Your task to perform on an android device: open app "Pandora - Music & Podcasts" (install if not already installed) and go to login screen Image 0: 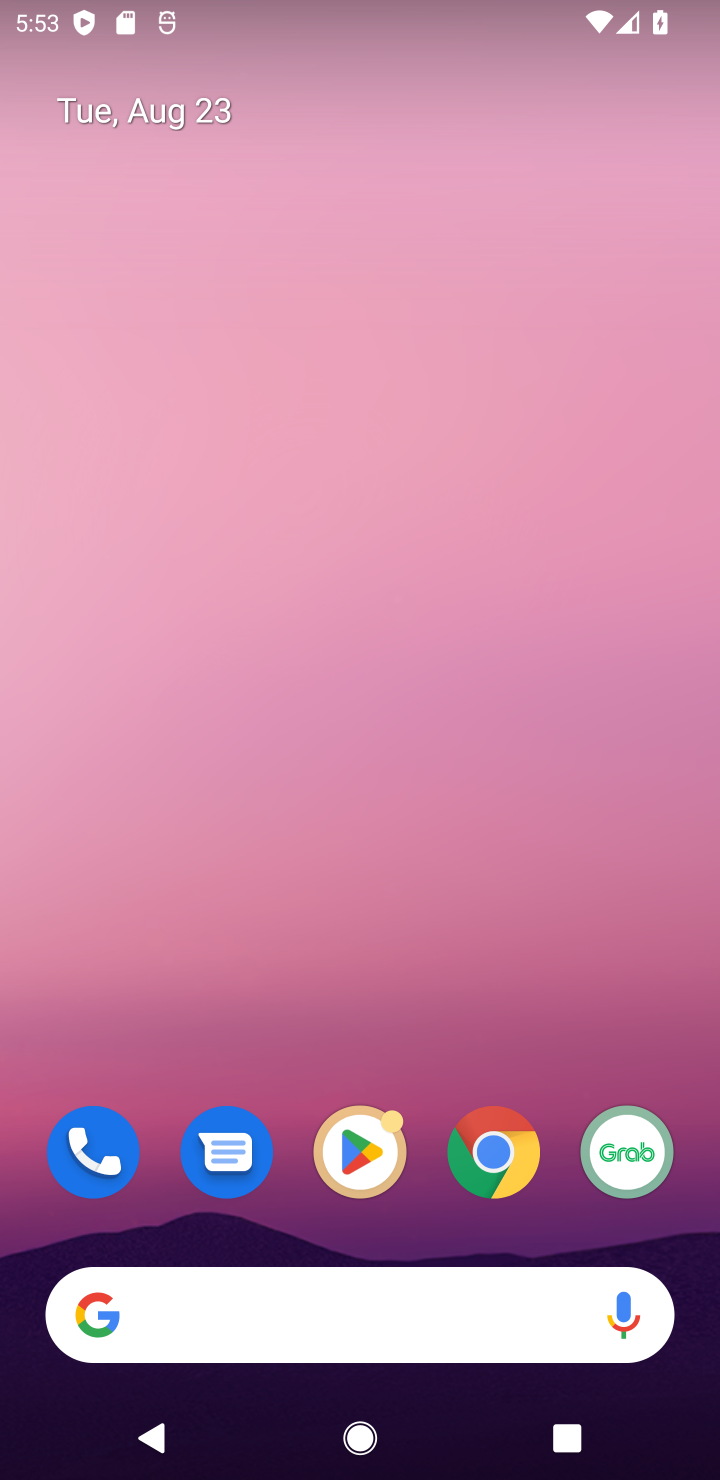
Step 0: click (374, 1147)
Your task to perform on an android device: open app "Pandora - Music & Podcasts" (install if not already installed) and go to login screen Image 1: 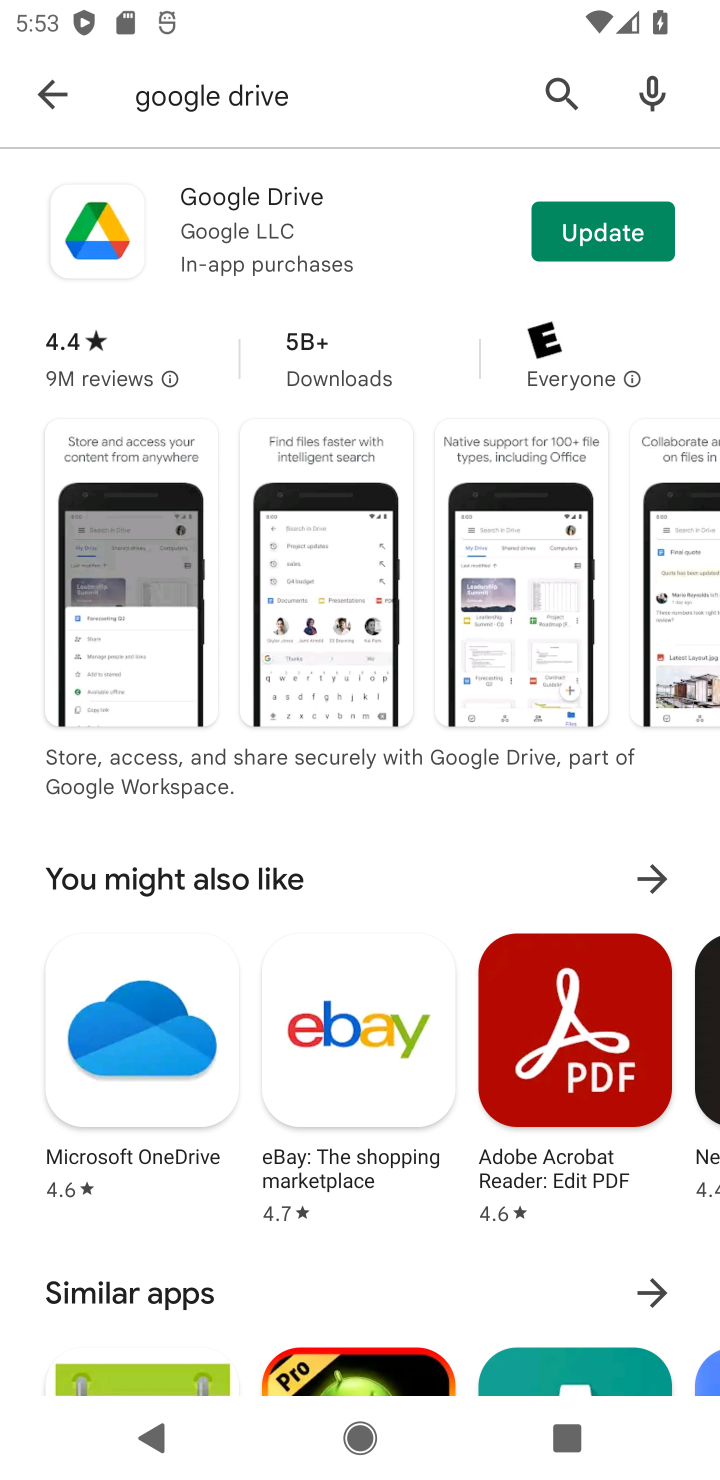
Step 1: click (576, 84)
Your task to perform on an android device: open app "Pandora - Music & Podcasts" (install if not already installed) and go to login screen Image 2: 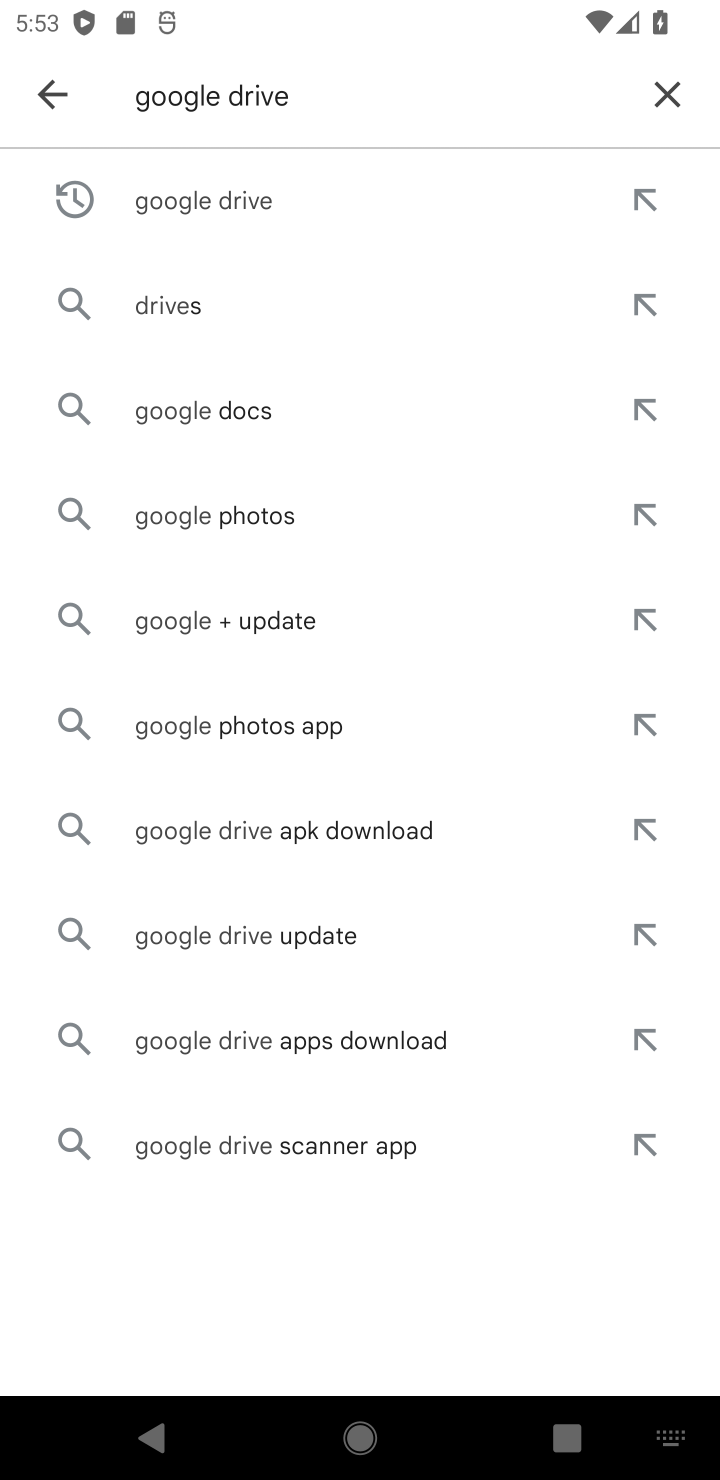
Step 2: click (684, 97)
Your task to perform on an android device: open app "Pandora - Music & Podcasts" (install if not already installed) and go to login screen Image 3: 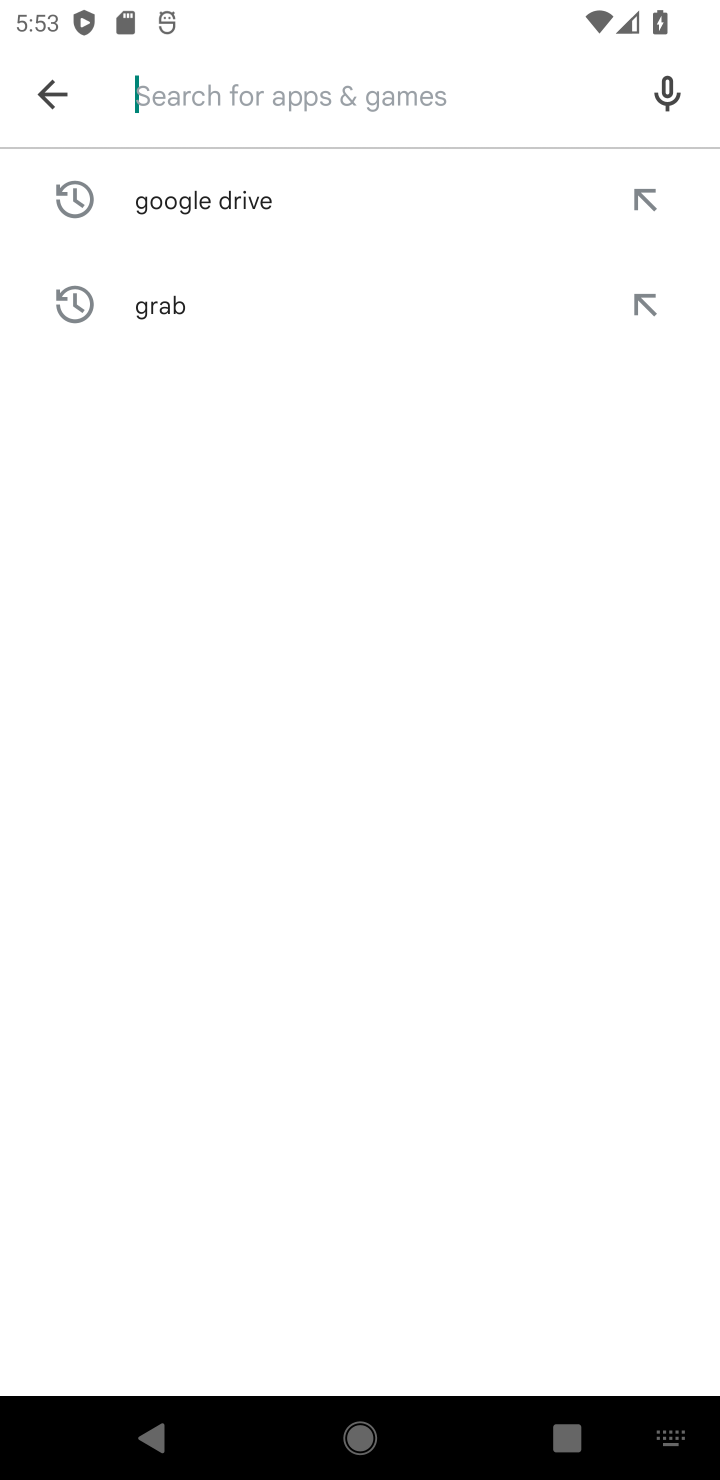
Step 3: click (277, 116)
Your task to perform on an android device: open app "Pandora - Music & Podcasts" (install if not already installed) and go to login screen Image 4: 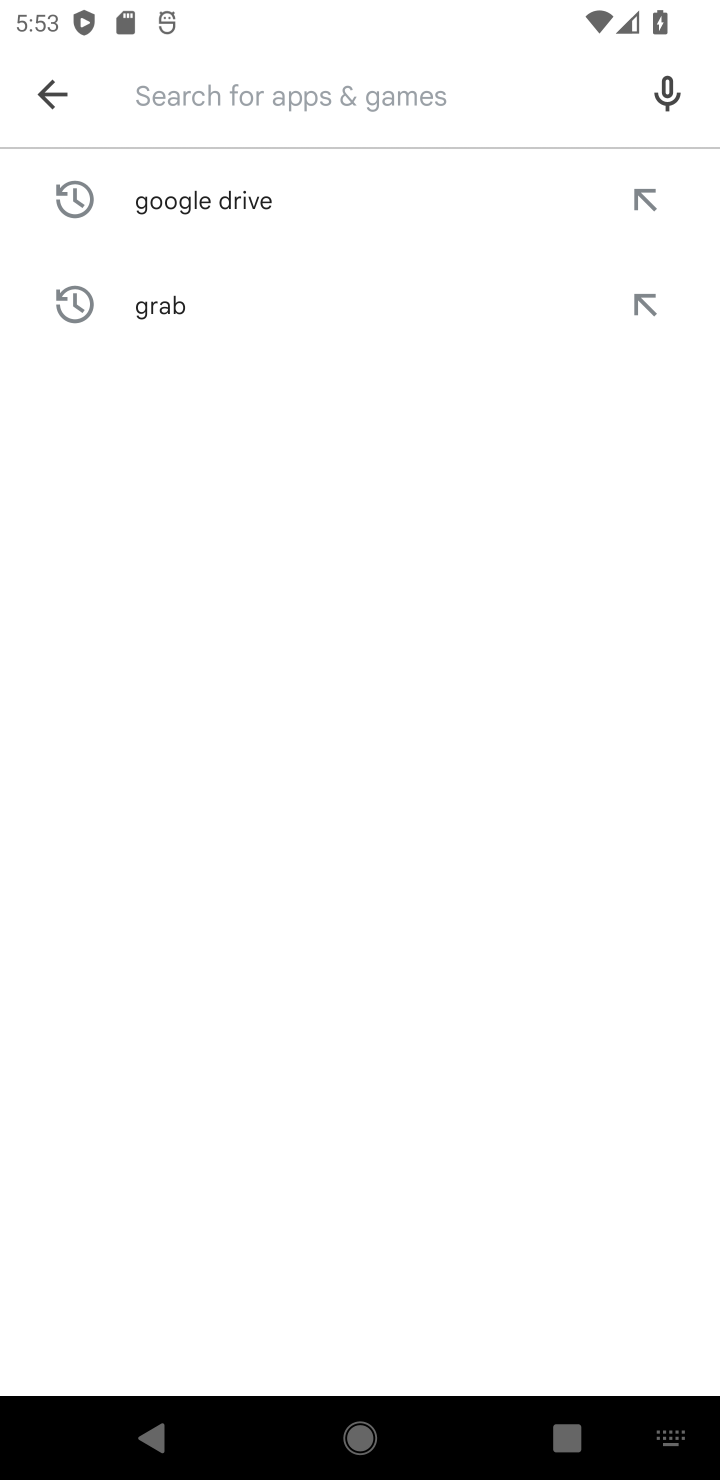
Step 4: type "pandora"
Your task to perform on an android device: open app "Pandora - Music & Podcasts" (install if not already installed) and go to login screen Image 5: 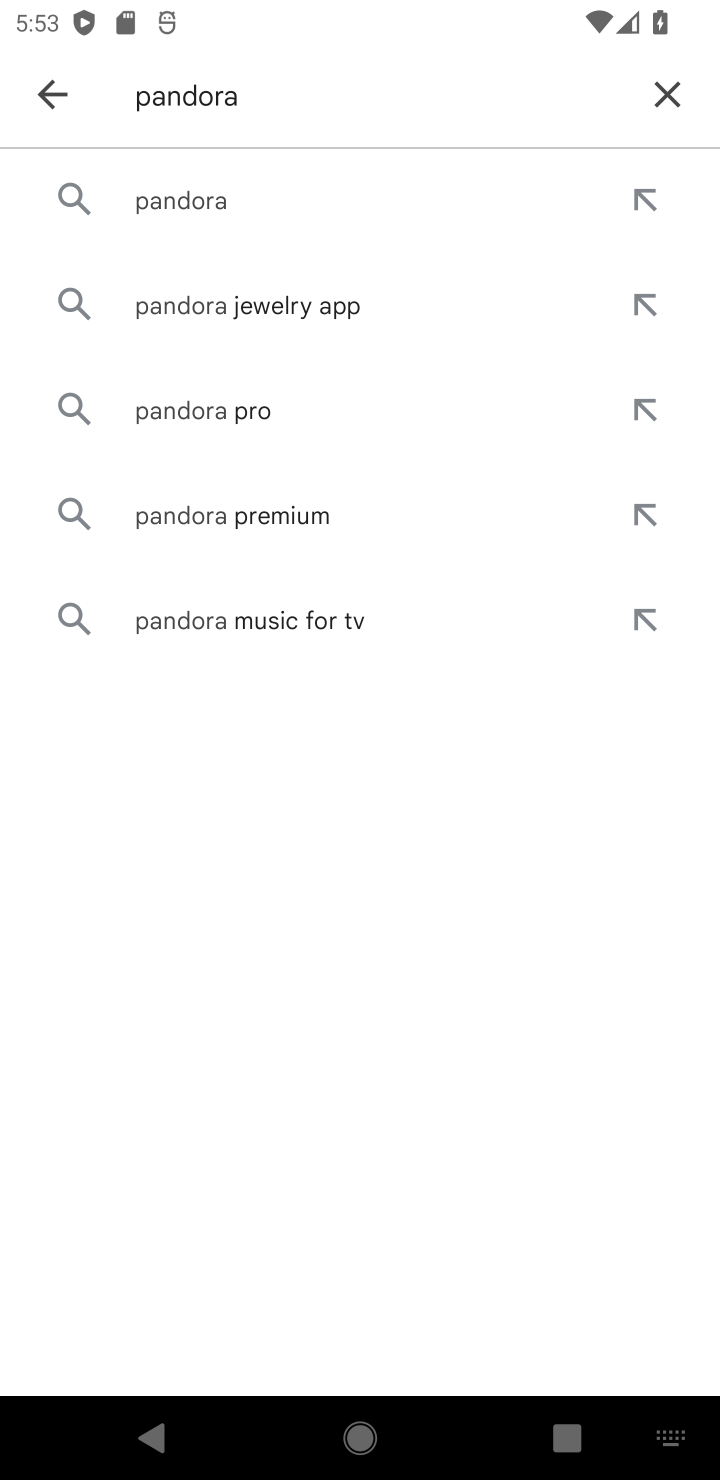
Step 5: click (300, 204)
Your task to perform on an android device: open app "Pandora - Music & Podcasts" (install if not already installed) and go to login screen Image 6: 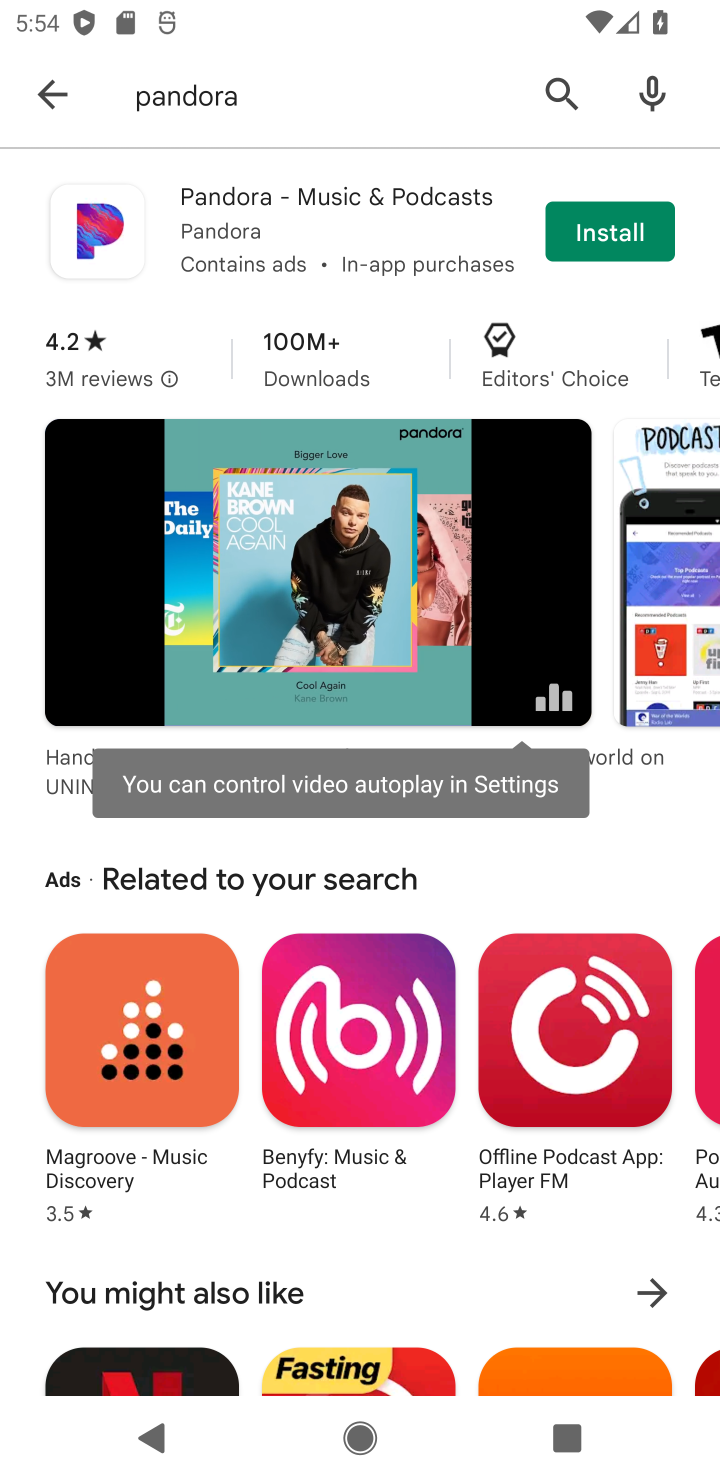
Step 6: click (633, 225)
Your task to perform on an android device: open app "Pandora - Music & Podcasts" (install if not already installed) and go to login screen Image 7: 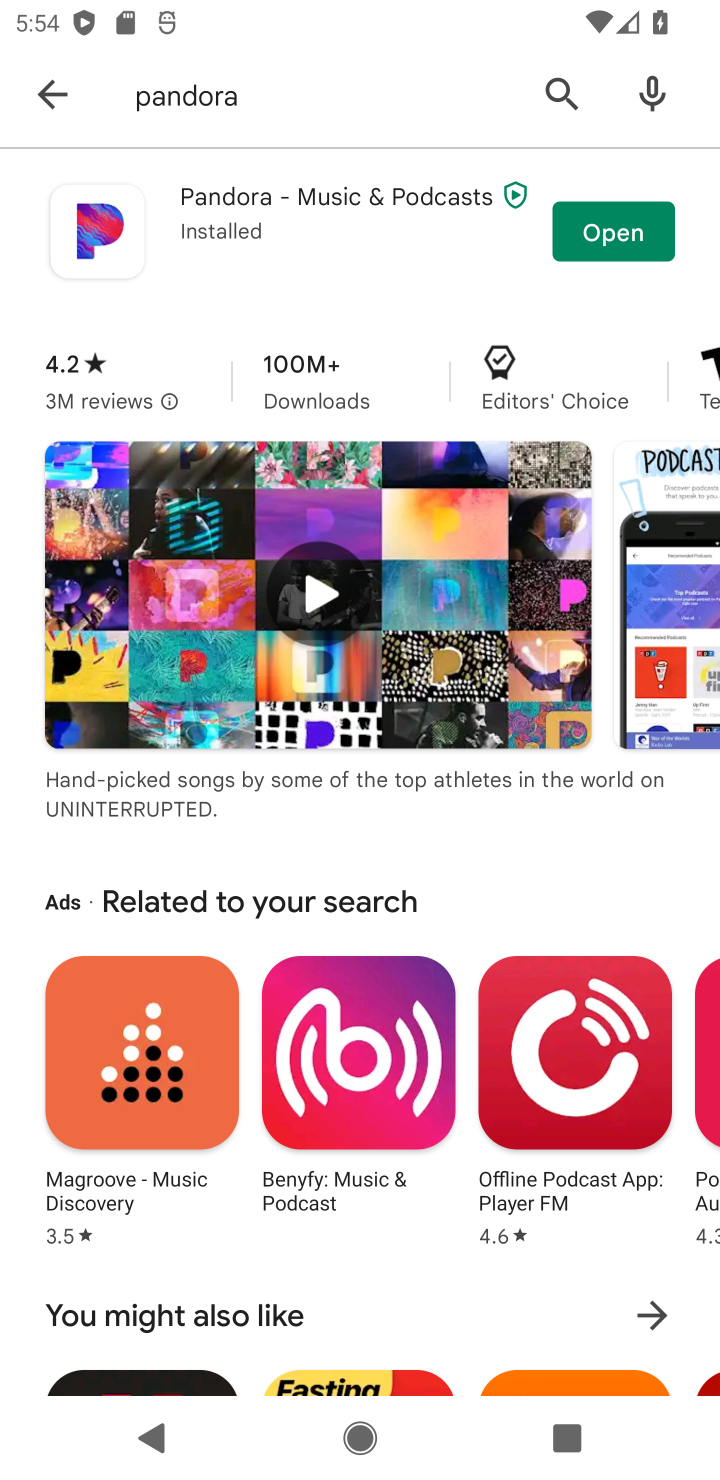
Step 7: click (609, 242)
Your task to perform on an android device: open app "Pandora - Music & Podcasts" (install if not already installed) and go to login screen Image 8: 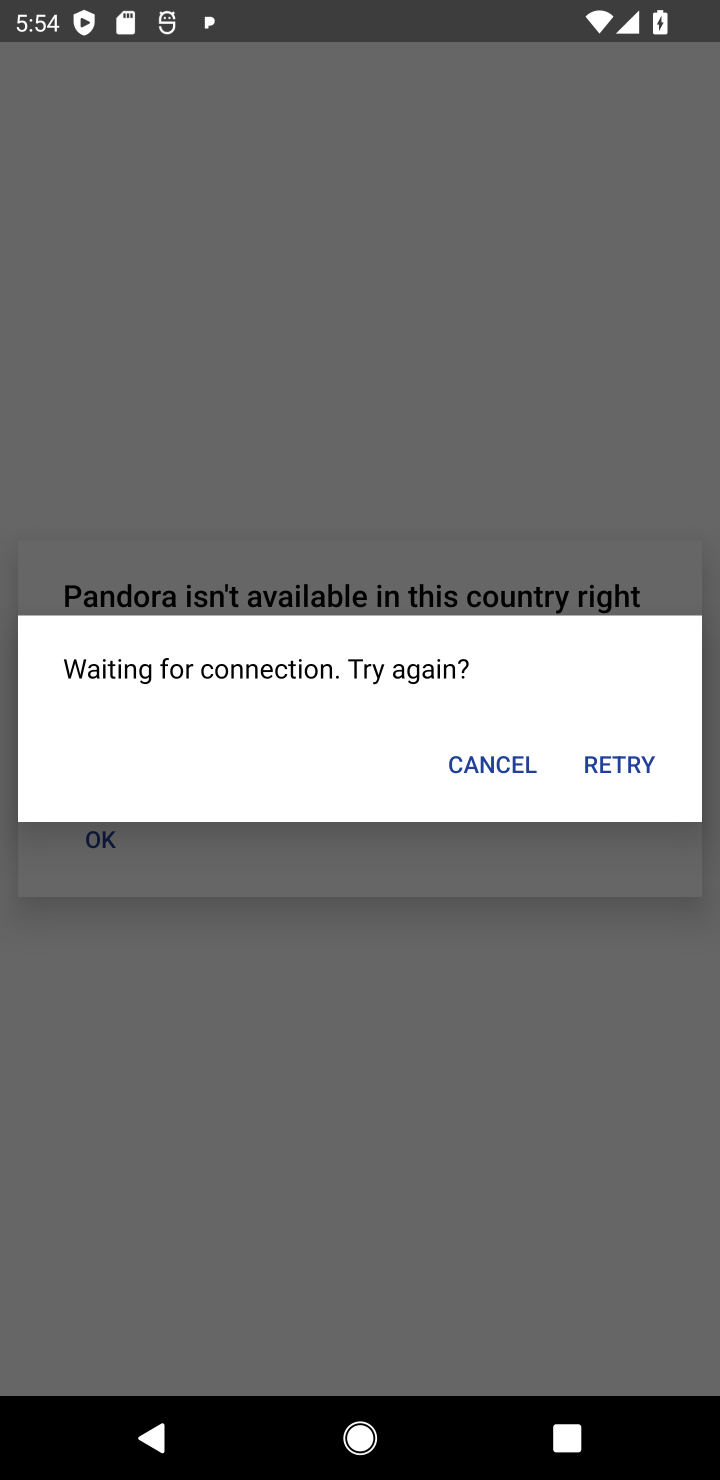
Step 8: click (487, 749)
Your task to perform on an android device: open app "Pandora - Music & Podcasts" (install if not already installed) and go to login screen Image 9: 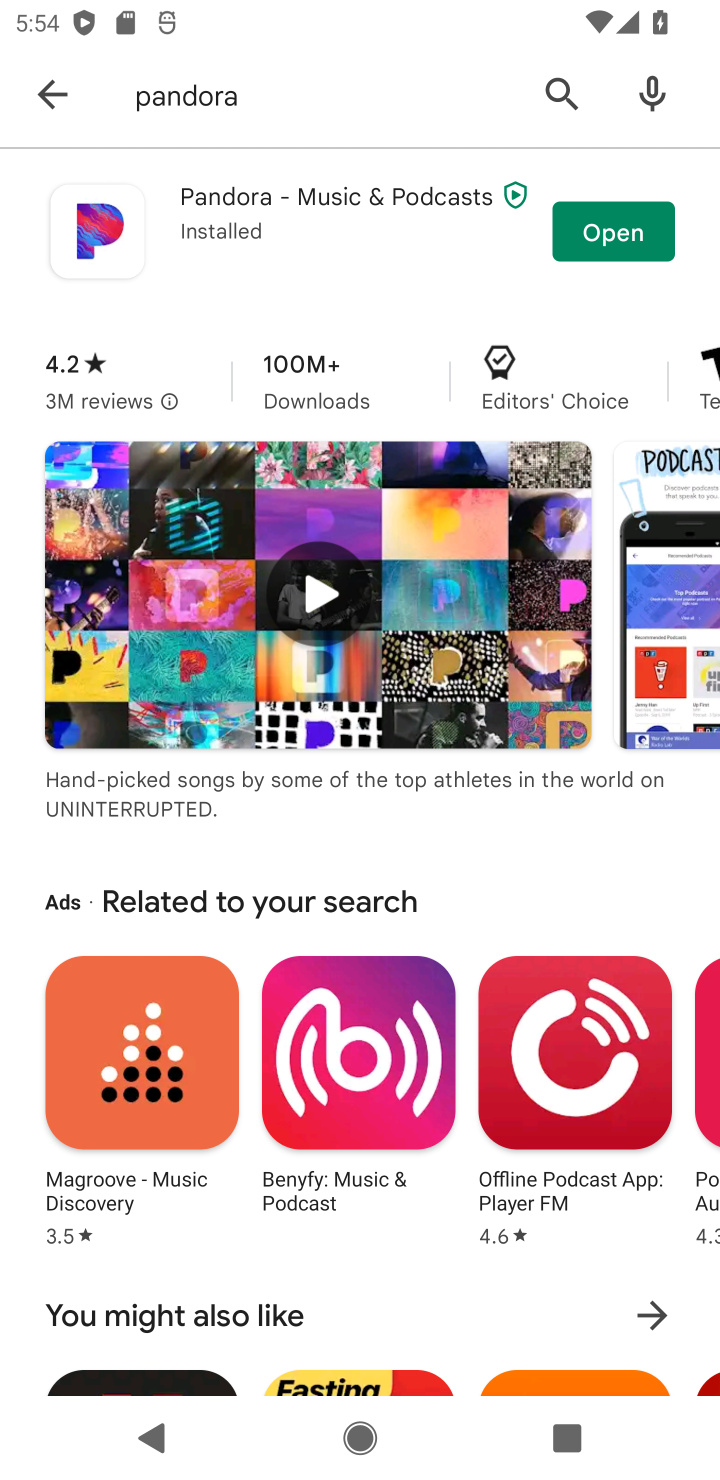
Step 9: task complete